Your task to perform on an android device: Go to internet settings Image 0: 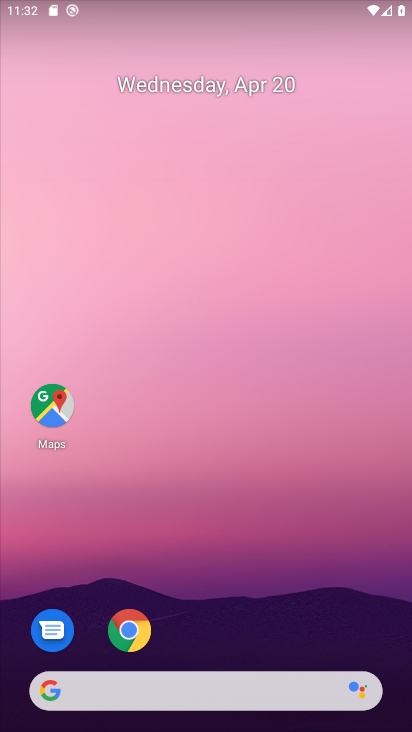
Step 0: drag from (255, 722) to (336, 228)
Your task to perform on an android device: Go to internet settings Image 1: 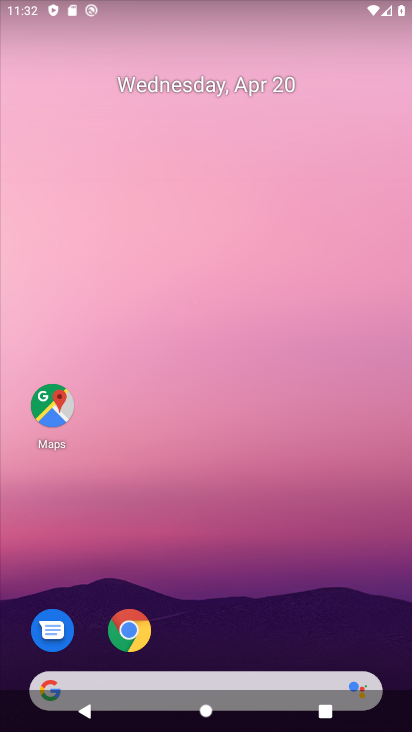
Step 1: drag from (206, 675) to (400, 228)
Your task to perform on an android device: Go to internet settings Image 2: 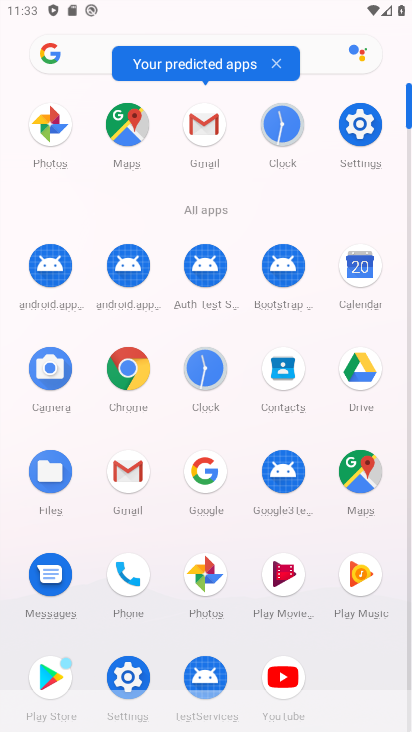
Step 2: click (139, 669)
Your task to perform on an android device: Go to internet settings Image 3: 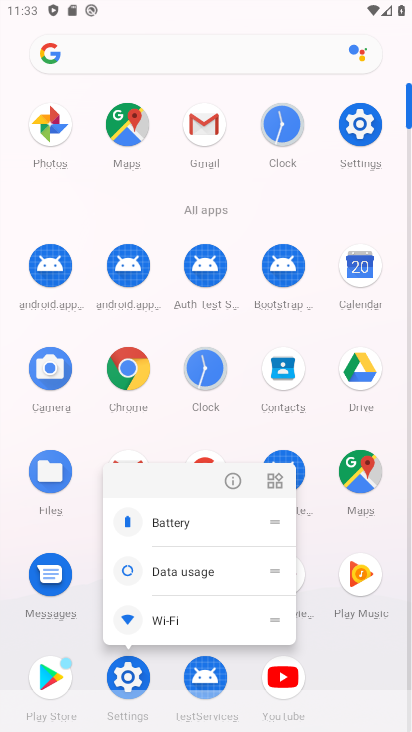
Step 3: click (139, 669)
Your task to perform on an android device: Go to internet settings Image 4: 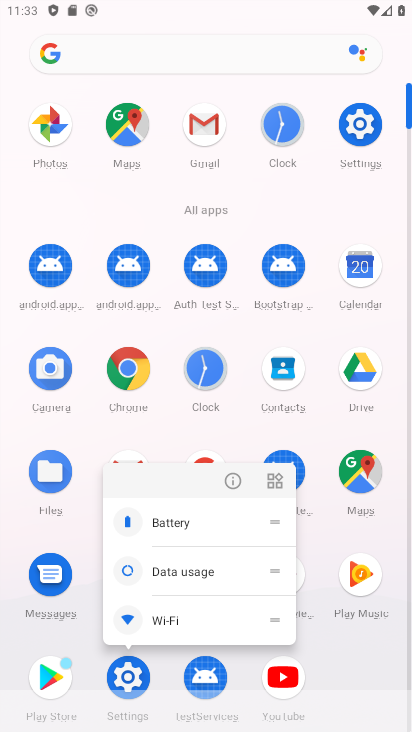
Step 4: click (139, 669)
Your task to perform on an android device: Go to internet settings Image 5: 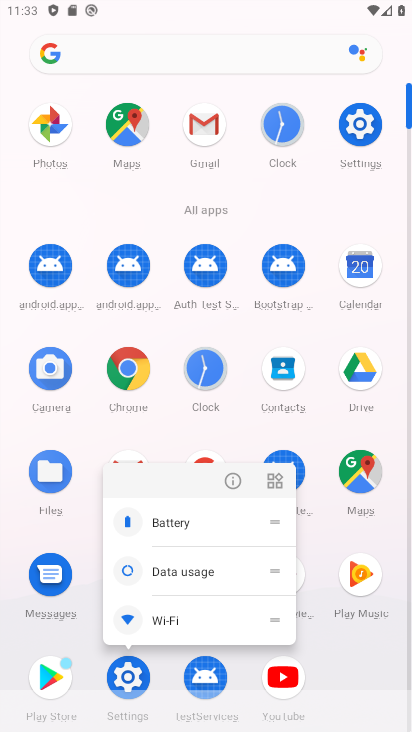
Step 5: click (139, 669)
Your task to perform on an android device: Go to internet settings Image 6: 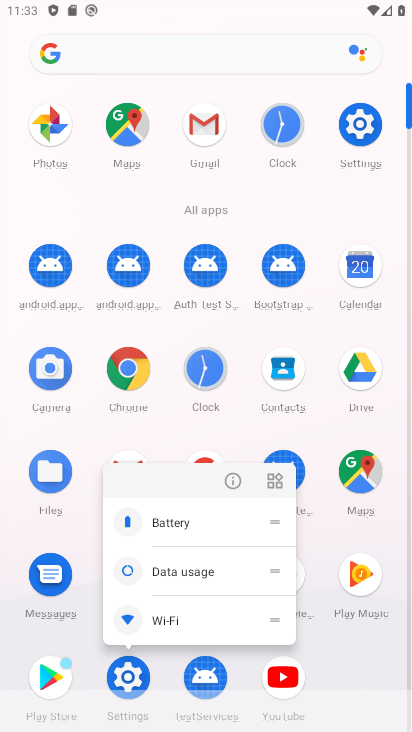
Step 6: click (139, 669)
Your task to perform on an android device: Go to internet settings Image 7: 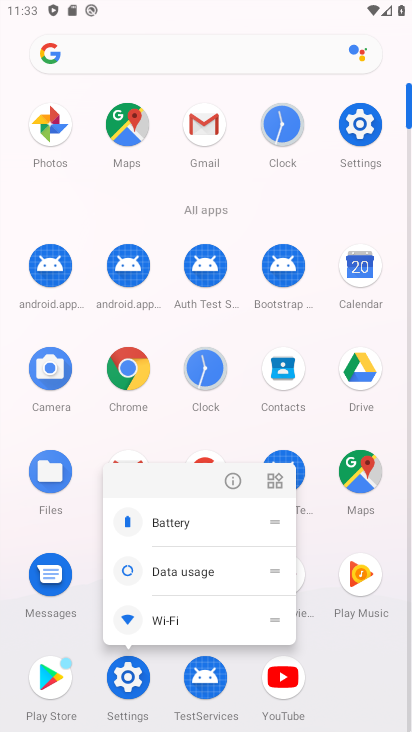
Step 7: click (139, 669)
Your task to perform on an android device: Go to internet settings Image 8: 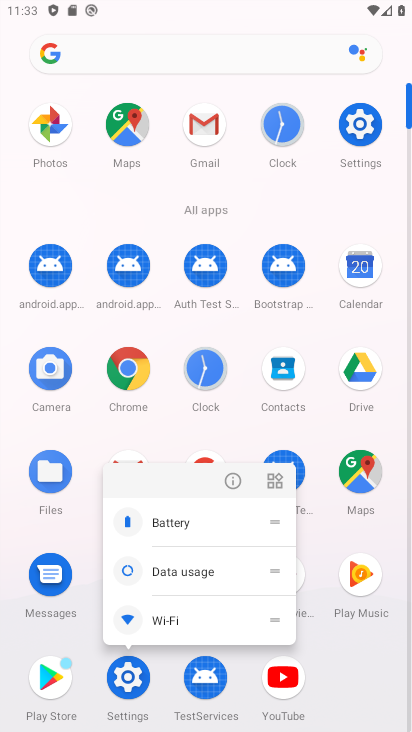
Step 8: click (139, 669)
Your task to perform on an android device: Go to internet settings Image 9: 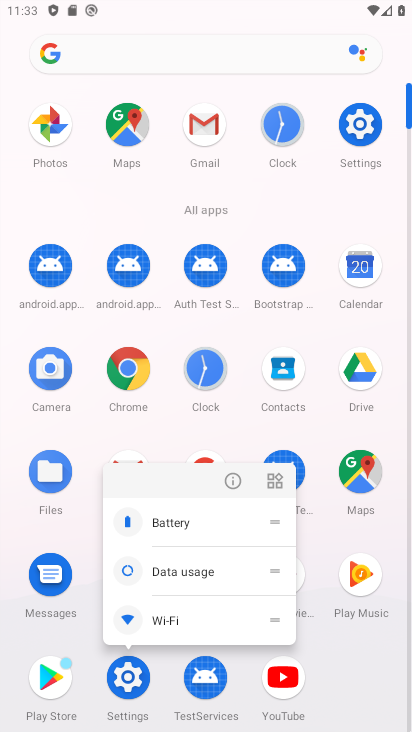
Step 9: click (139, 669)
Your task to perform on an android device: Go to internet settings Image 10: 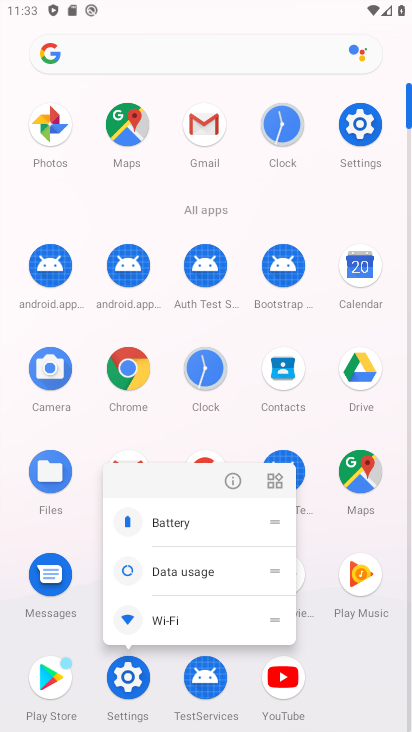
Step 10: click (139, 669)
Your task to perform on an android device: Go to internet settings Image 11: 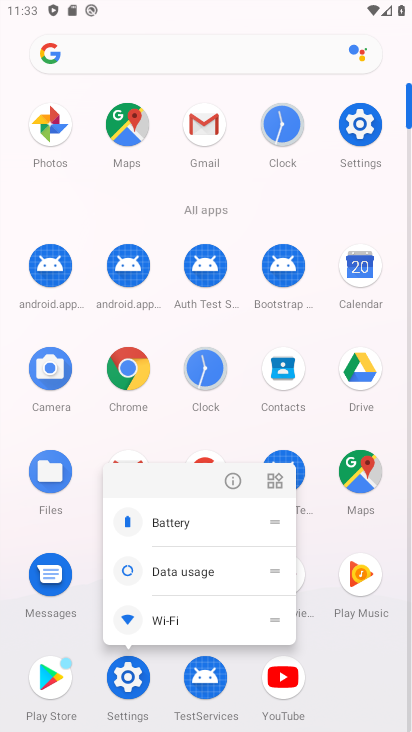
Step 11: click (139, 669)
Your task to perform on an android device: Go to internet settings Image 12: 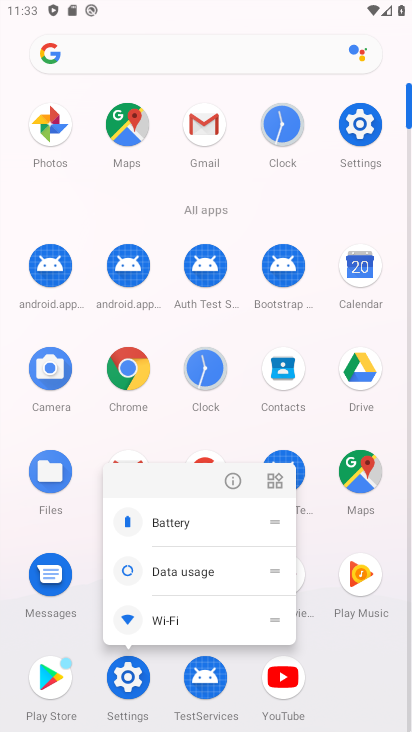
Step 12: click (139, 669)
Your task to perform on an android device: Go to internet settings Image 13: 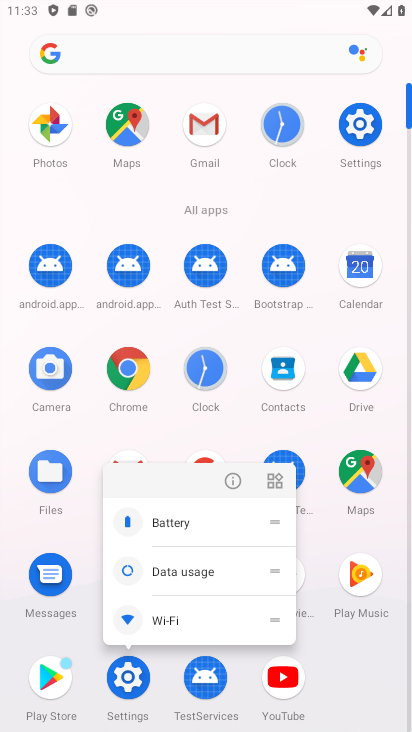
Step 13: click (139, 669)
Your task to perform on an android device: Go to internet settings Image 14: 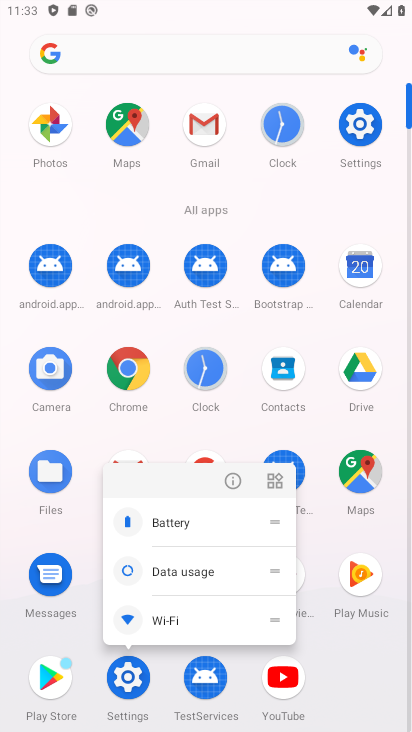
Step 14: click (139, 669)
Your task to perform on an android device: Go to internet settings Image 15: 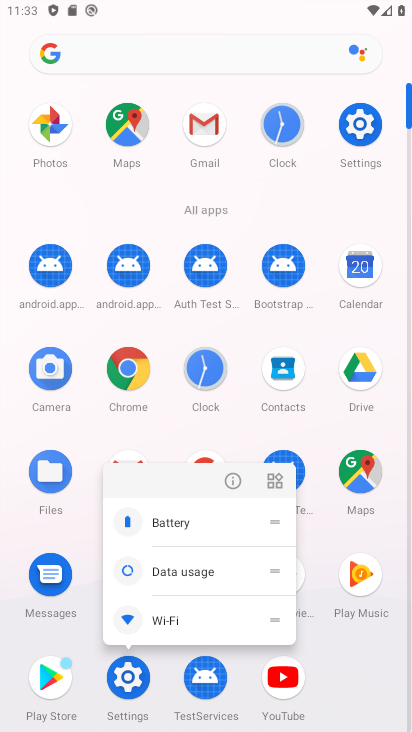
Step 15: click (139, 669)
Your task to perform on an android device: Go to internet settings Image 16: 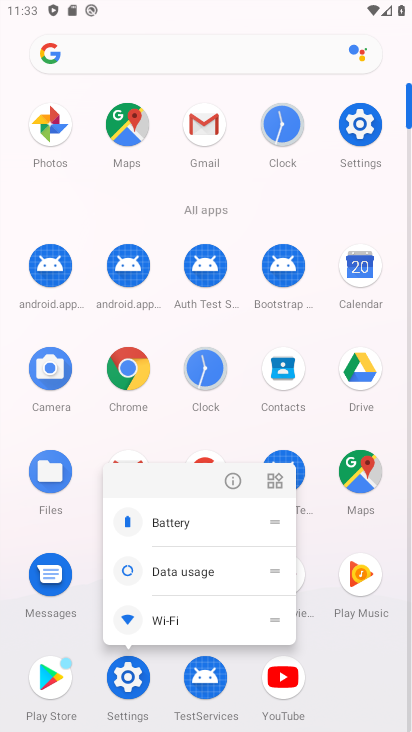
Step 16: click (139, 669)
Your task to perform on an android device: Go to internet settings Image 17: 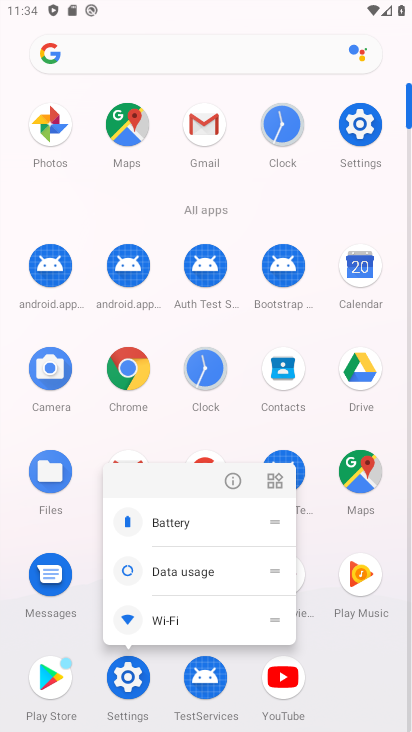
Step 17: click (139, 669)
Your task to perform on an android device: Go to internet settings Image 18: 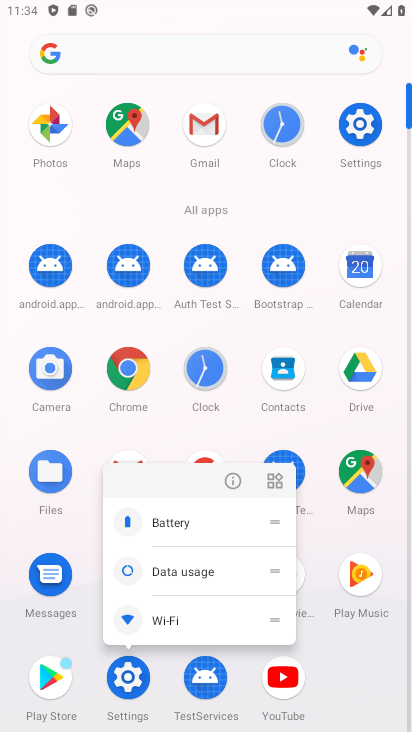
Step 18: click (139, 669)
Your task to perform on an android device: Go to internet settings Image 19: 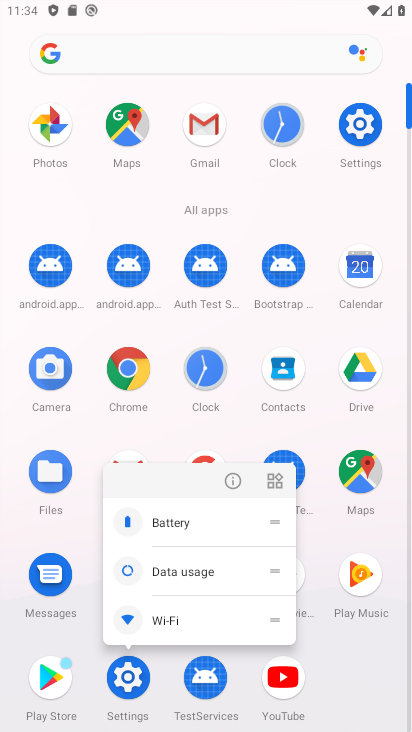
Step 19: click (139, 669)
Your task to perform on an android device: Go to internet settings Image 20: 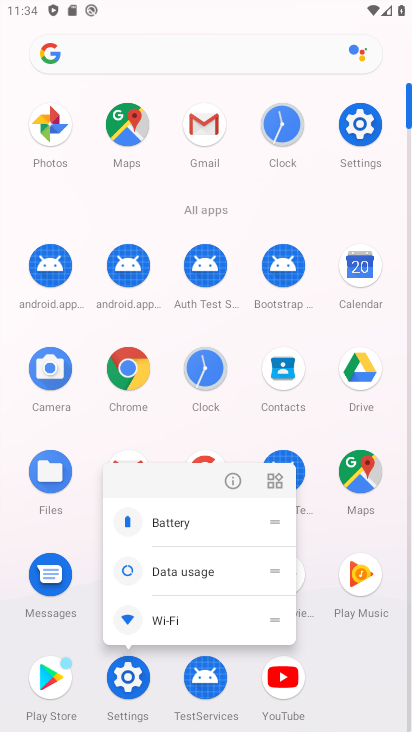
Step 20: click (139, 669)
Your task to perform on an android device: Go to internet settings Image 21: 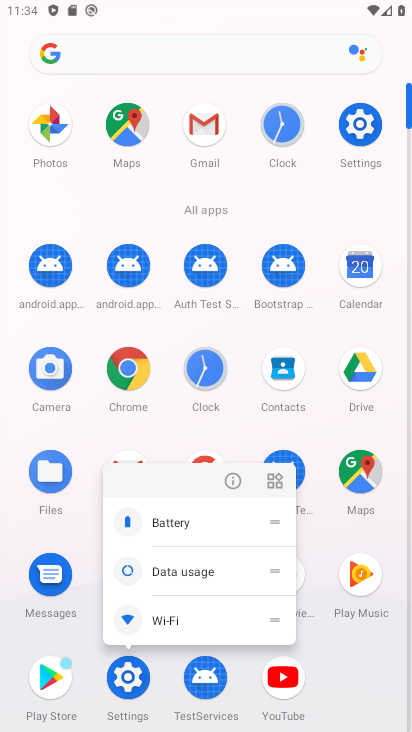
Step 21: click (139, 669)
Your task to perform on an android device: Go to internet settings Image 22: 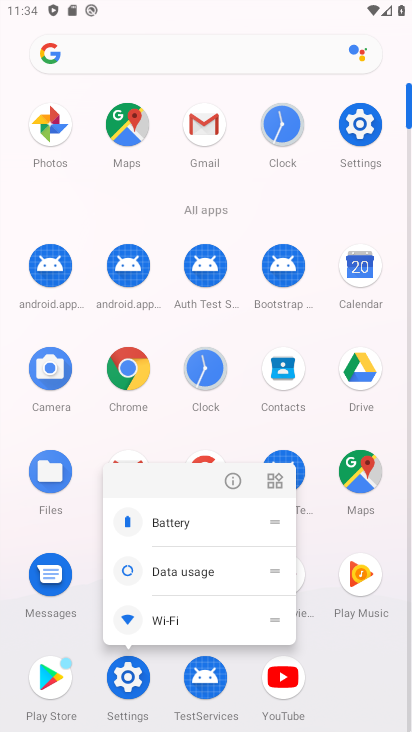
Step 22: click (139, 669)
Your task to perform on an android device: Go to internet settings Image 23: 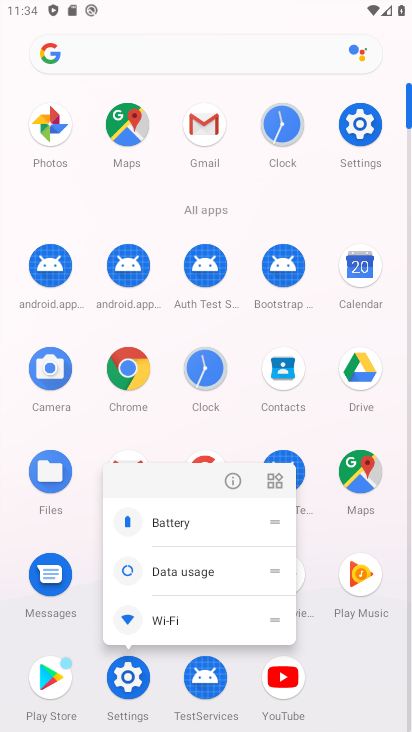
Step 23: click (139, 669)
Your task to perform on an android device: Go to internet settings Image 24: 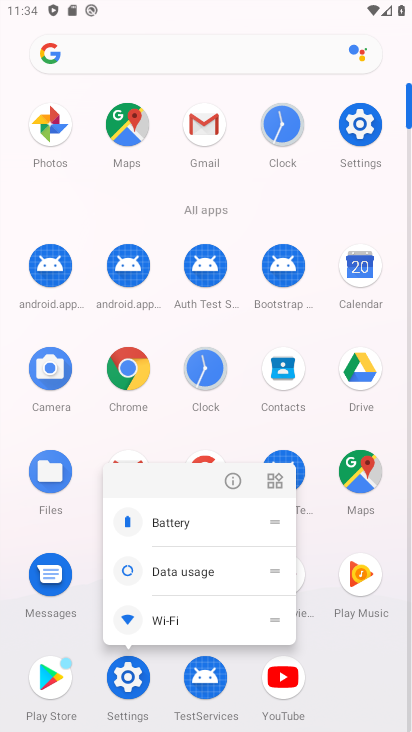
Step 24: click (139, 669)
Your task to perform on an android device: Go to internet settings Image 25: 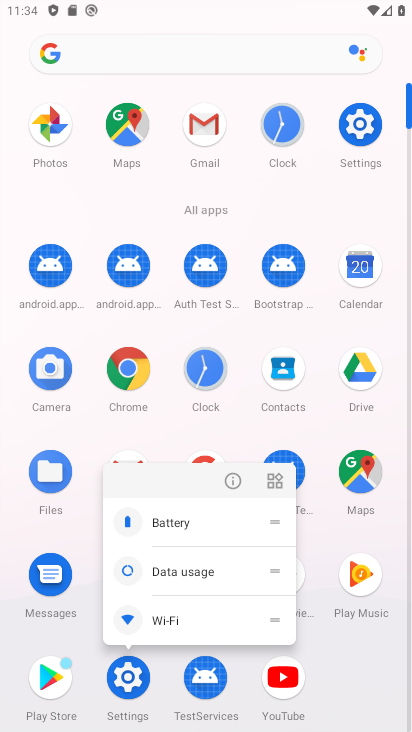
Step 25: click (139, 669)
Your task to perform on an android device: Go to internet settings Image 26: 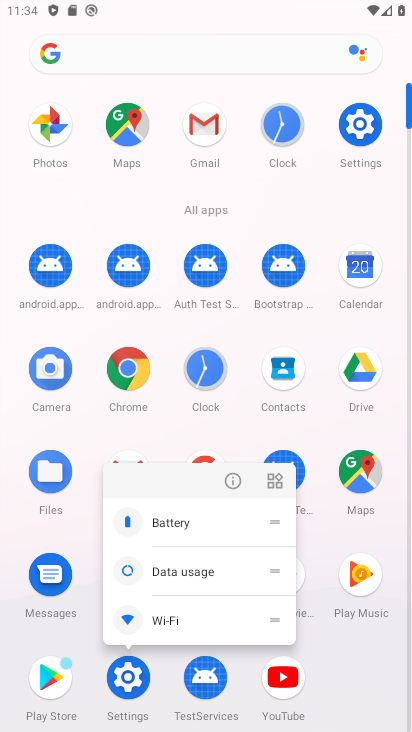
Step 26: click (139, 669)
Your task to perform on an android device: Go to internet settings Image 27: 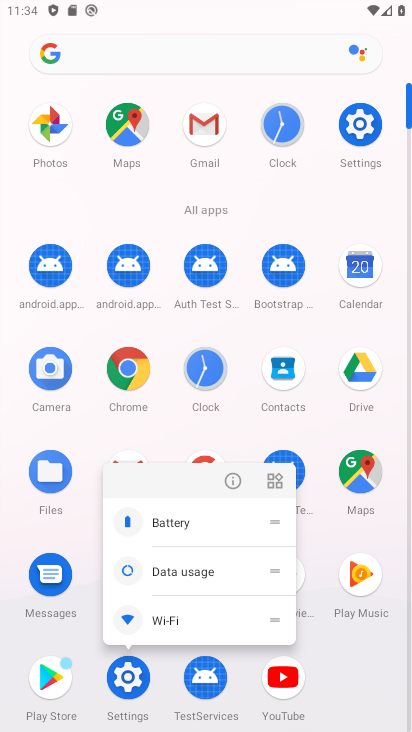
Step 27: click (139, 669)
Your task to perform on an android device: Go to internet settings Image 28: 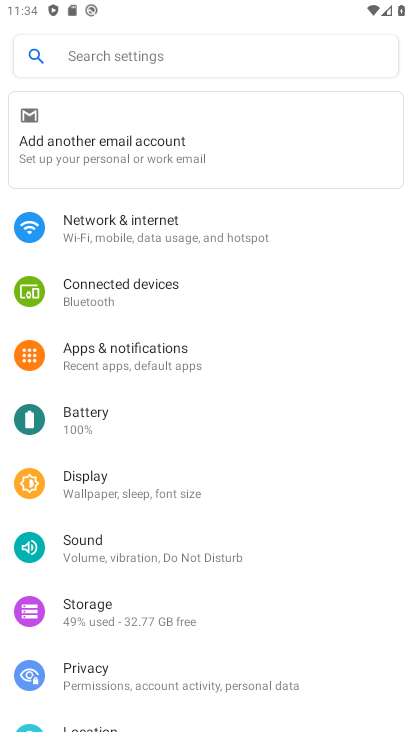
Step 28: click (152, 233)
Your task to perform on an android device: Go to internet settings Image 29: 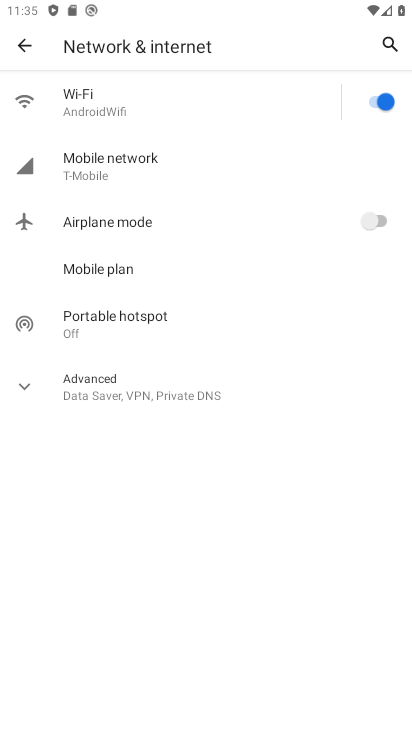
Step 29: click (171, 171)
Your task to perform on an android device: Go to internet settings Image 30: 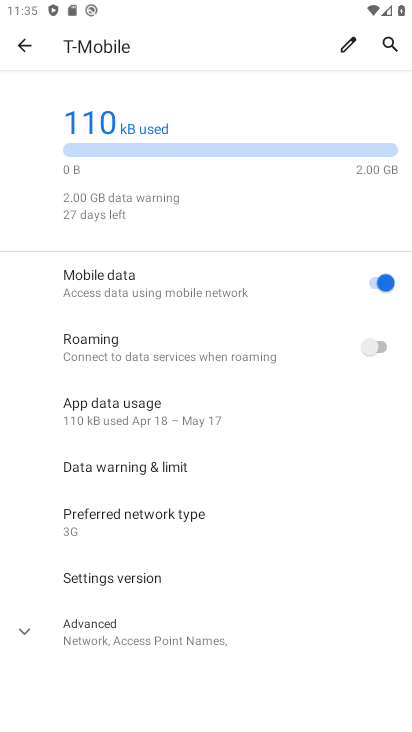
Step 30: task complete